Your task to perform on an android device: What's the weather? Image 0: 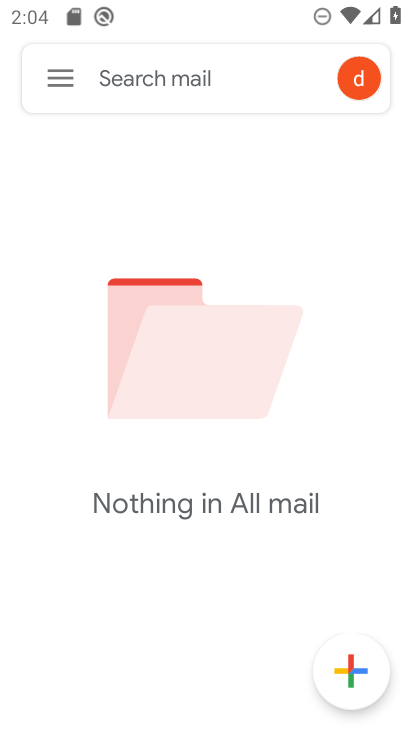
Step 0: press back button
Your task to perform on an android device: What's the weather? Image 1: 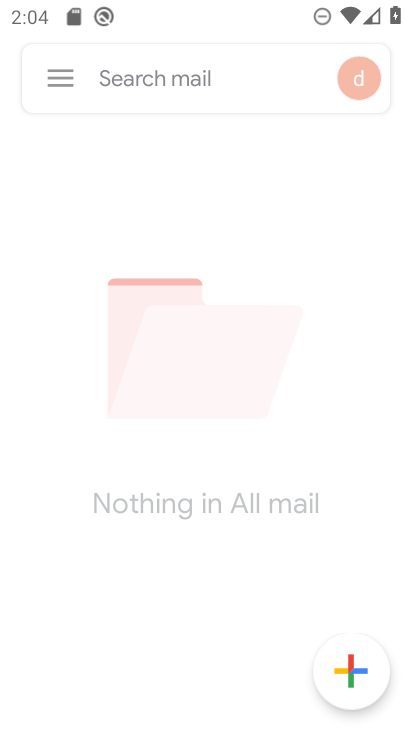
Step 1: press back button
Your task to perform on an android device: What's the weather? Image 2: 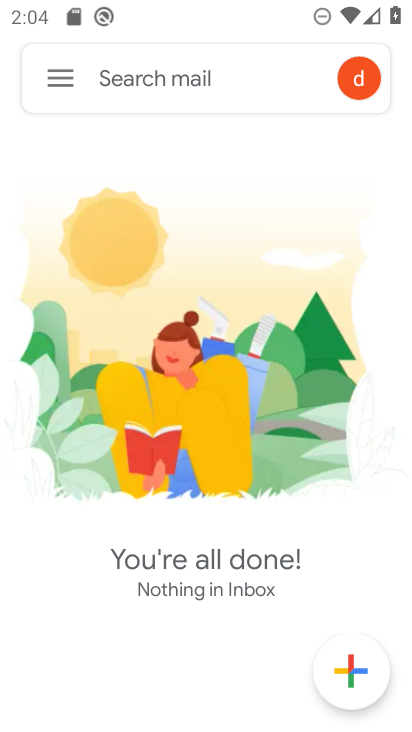
Step 2: press back button
Your task to perform on an android device: What's the weather? Image 3: 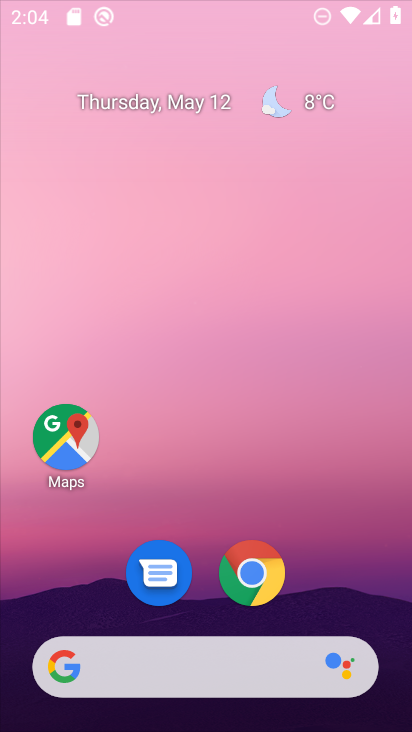
Step 3: press back button
Your task to perform on an android device: What's the weather? Image 4: 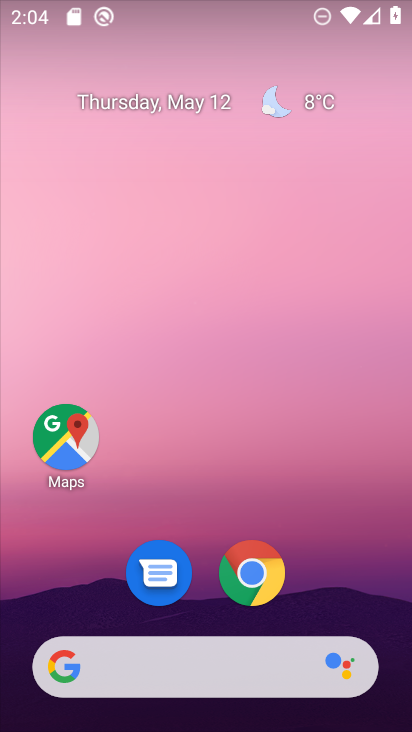
Step 4: click (276, 112)
Your task to perform on an android device: What's the weather? Image 5: 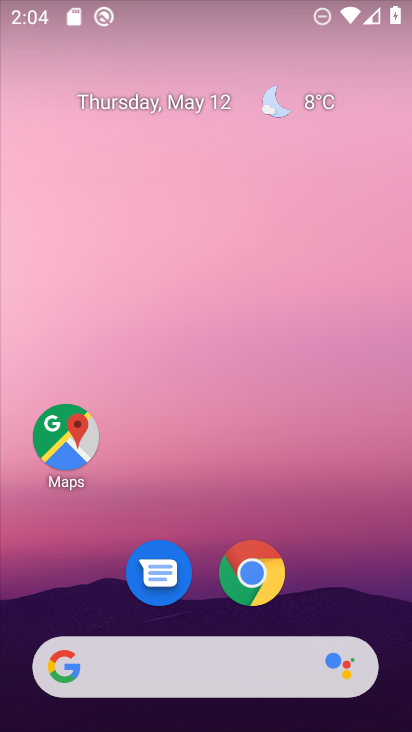
Step 5: click (268, 98)
Your task to perform on an android device: What's the weather? Image 6: 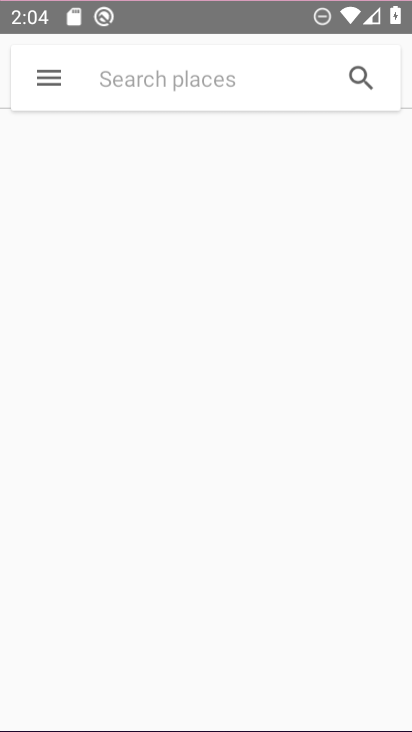
Step 6: click (269, 91)
Your task to perform on an android device: What's the weather? Image 7: 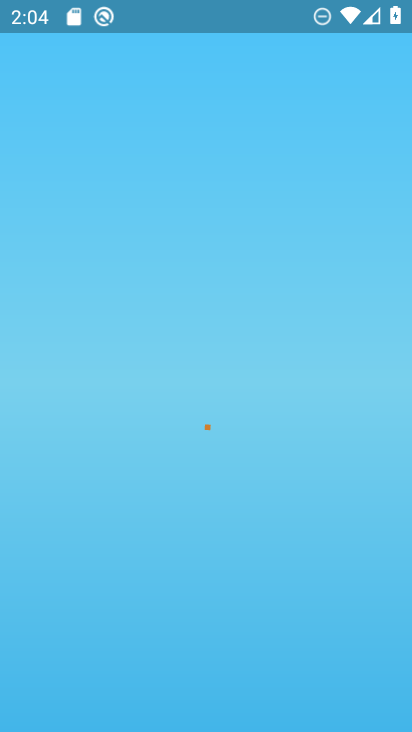
Step 7: click (269, 94)
Your task to perform on an android device: What's the weather? Image 8: 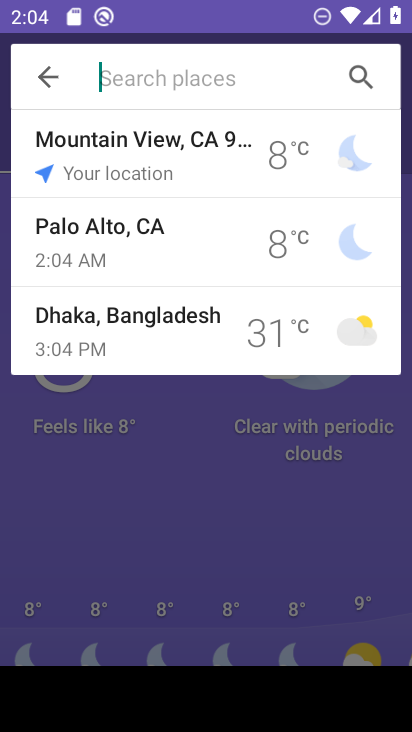
Step 8: click (50, 85)
Your task to perform on an android device: What's the weather? Image 9: 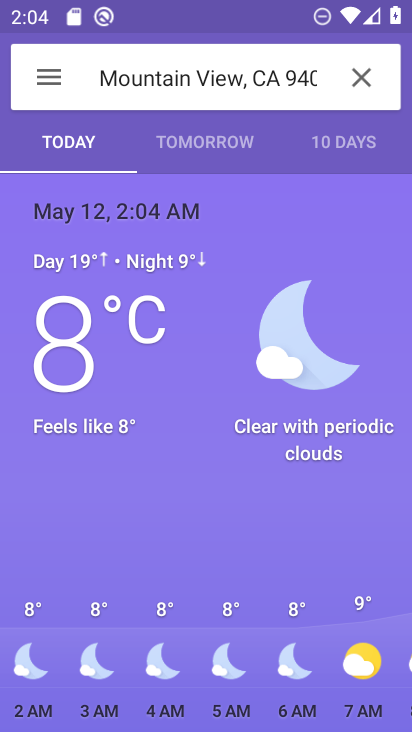
Step 9: drag from (159, 411) to (122, 242)
Your task to perform on an android device: What's the weather? Image 10: 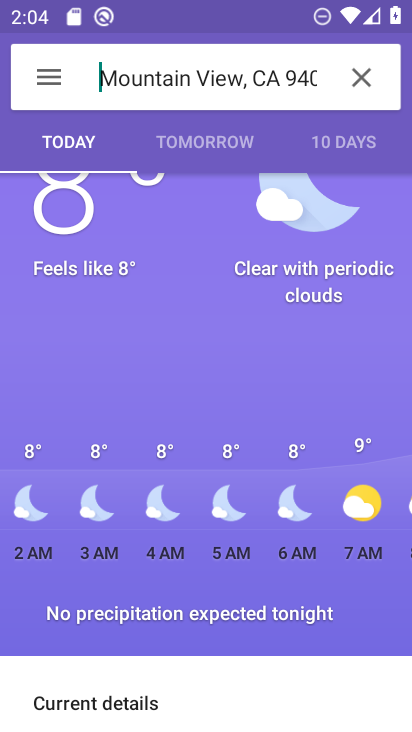
Step 10: click (144, 151)
Your task to perform on an android device: What's the weather? Image 11: 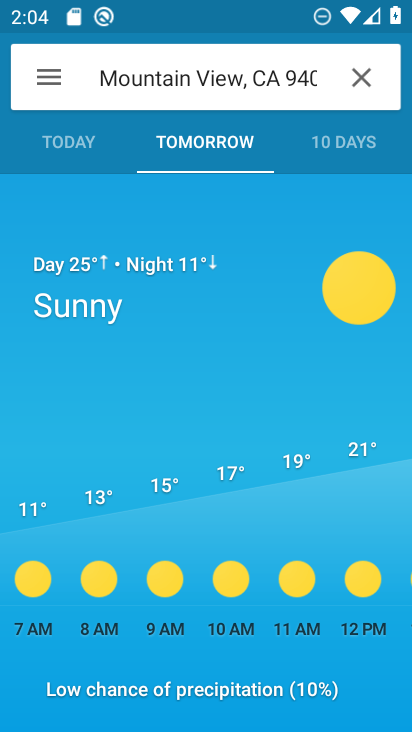
Step 11: task complete